Your task to perform on an android device: Open the web browser Image 0: 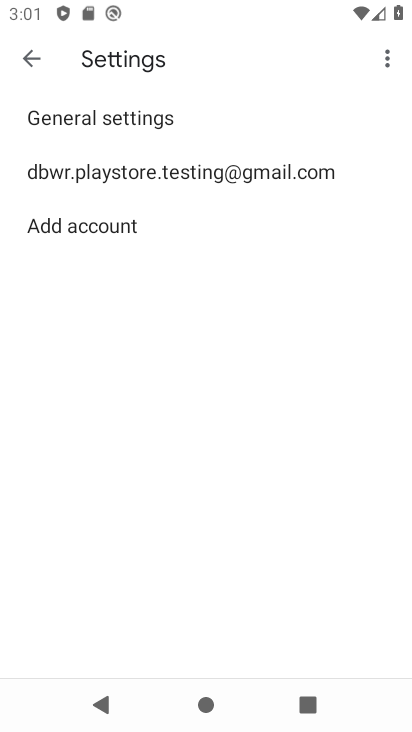
Step 0: press home button
Your task to perform on an android device: Open the web browser Image 1: 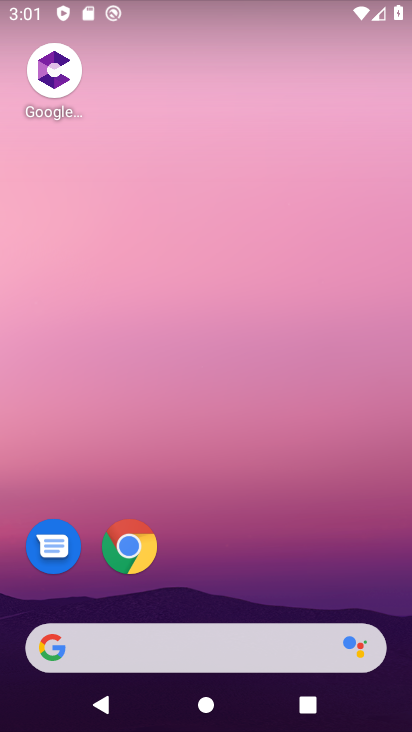
Step 1: drag from (203, 603) to (271, 1)
Your task to perform on an android device: Open the web browser Image 2: 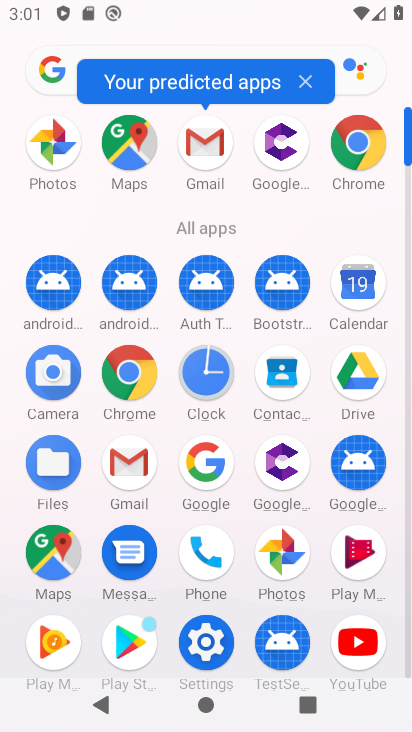
Step 2: click (362, 138)
Your task to perform on an android device: Open the web browser Image 3: 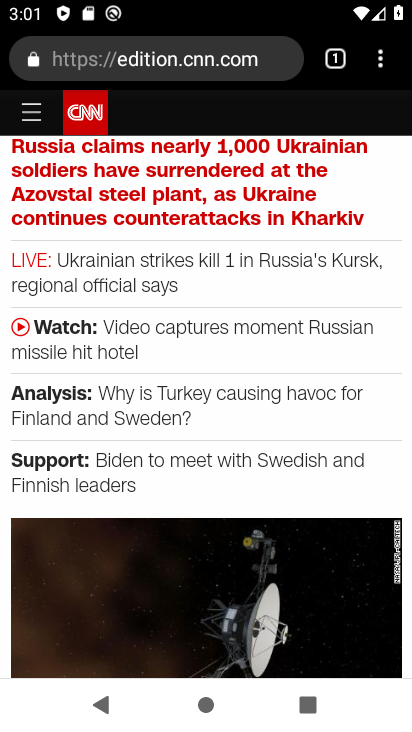
Step 3: click (337, 58)
Your task to perform on an android device: Open the web browser Image 4: 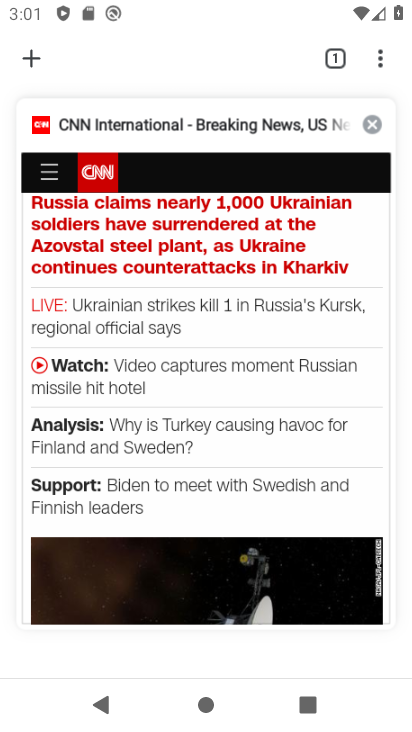
Step 4: click (370, 120)
Your task to perform on an android device: Open the web browser Image 5: 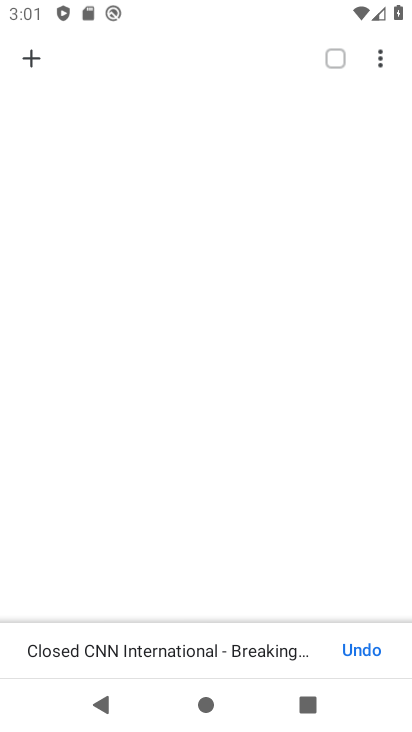
Step 5: click (35, 56)
Your task to perform on an android device: Open the web browser Image 6: 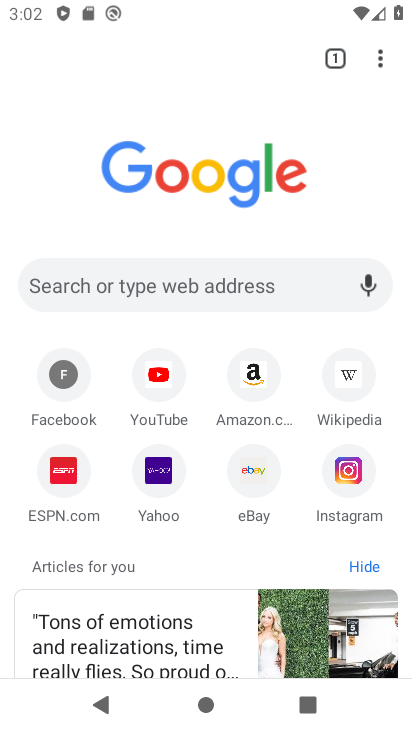
Step 6: task complete